Your task to perform on an android device: Go to Amazon Image 0: 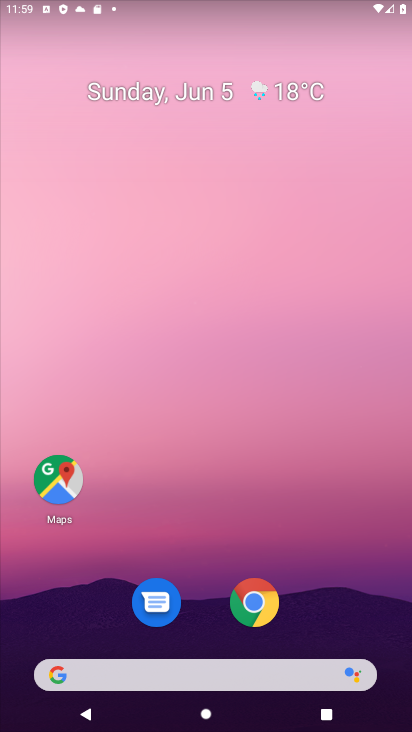
Step 0: click (226, 679)
Your task to perform on an android device: Go to Amazon Image 1: 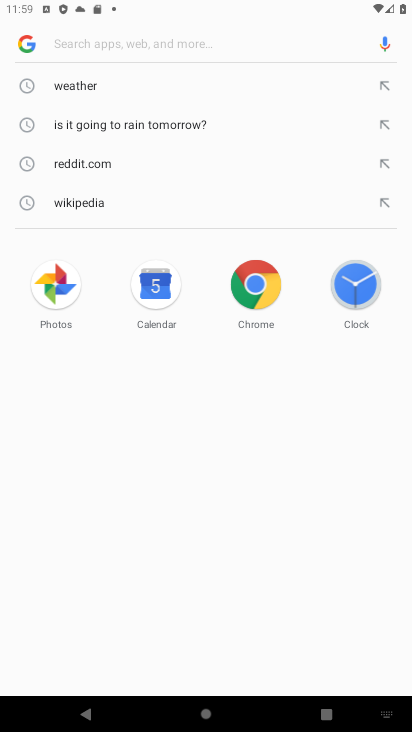
Step 1: type "amaazon"
Your task to perform on an android device: Go to Amazon Image 2: 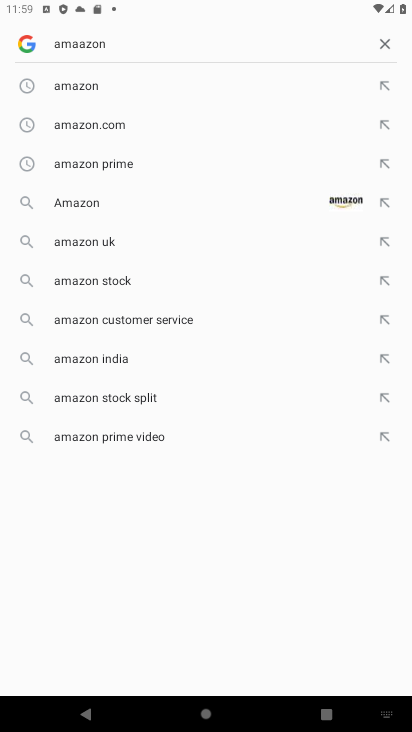
Step 2: click (115, 92)
Your task to perform on an android device: Go to Amazon Image 3: 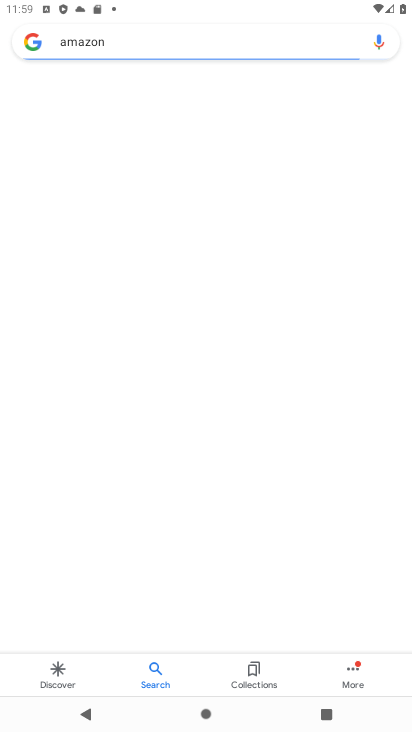
Step 3: task complete